Your task to perform on an android device: turn off airplane mode Image 0: 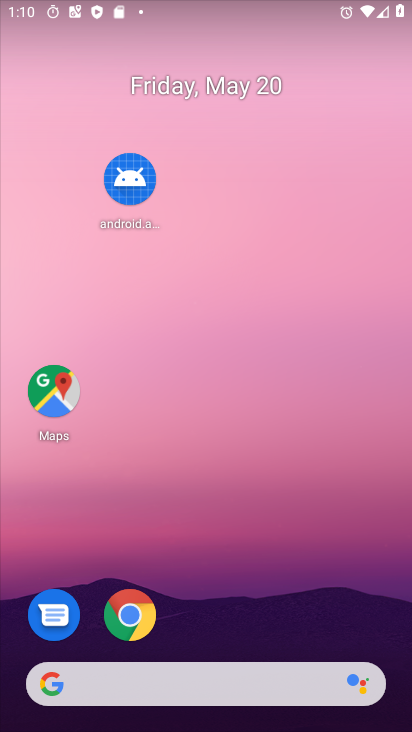
Step 0: drag from (365, 8) to (344, 506)
Your task to perform on an android device: turn off airplane mode Image 1: 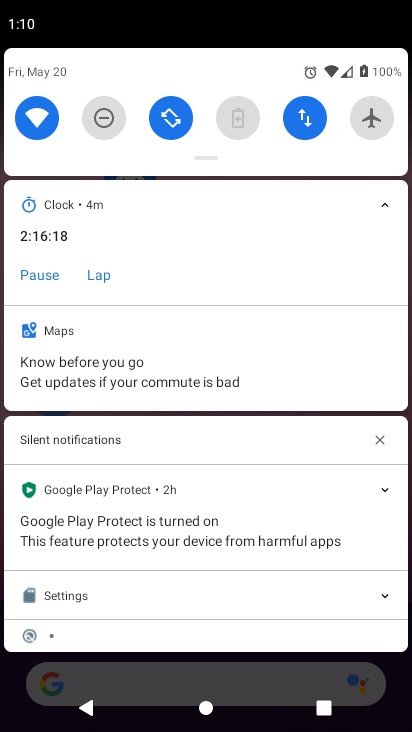
Step 1: task complete